Your task to perform on an android device: Open Yahoo.com Image 0: 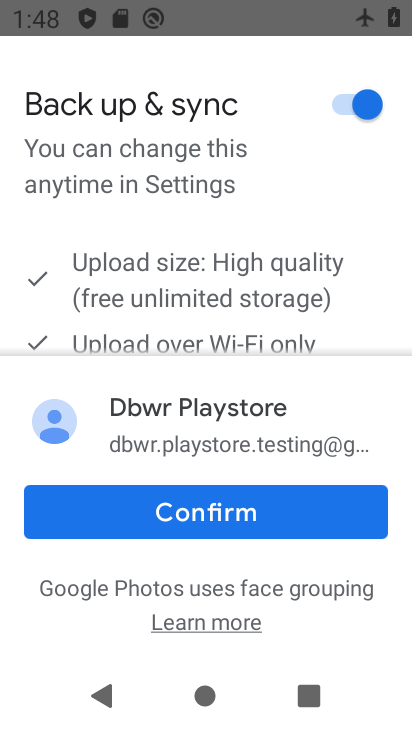
Step 0: press back button
Your task to perform on an android device: Open Yahoo.com Image 1: 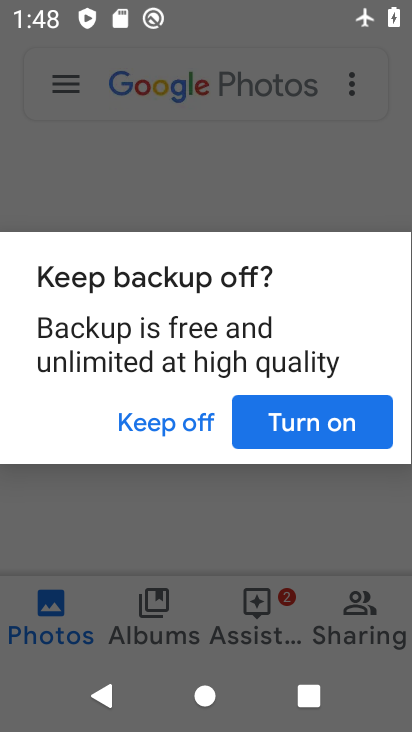
Step 1: press back button
Your task to perform on an android device: Open Yahoo.com Image 2: 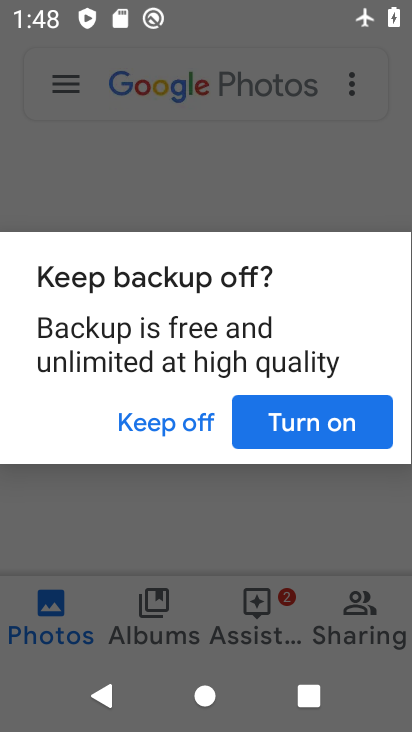
Step 2: press back button
Your task to perform on an android device: Open Yahoo.com Image 3: 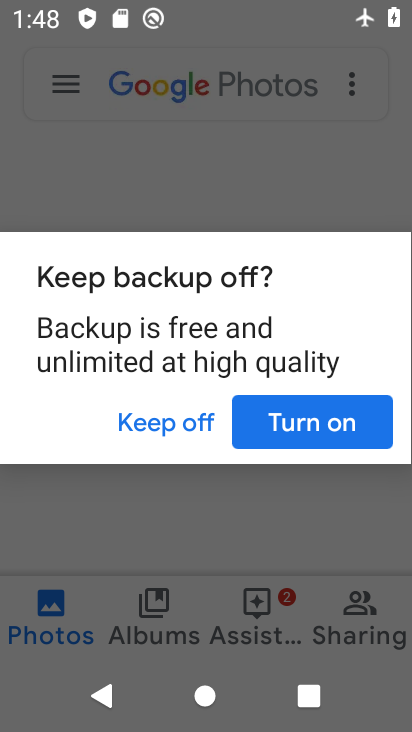
Step 3: press home button
Your task to perform on an android device: Open Yahoo.com Image 4: 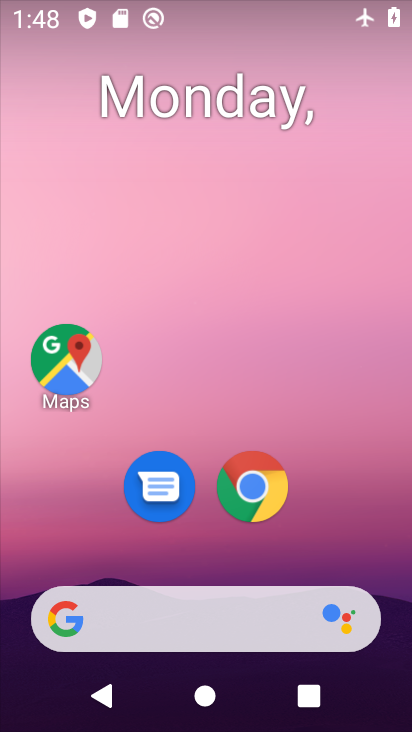
Step 4: click (259, 480)
Your task to perform on an android device: Open Yahoo.com Image 5: 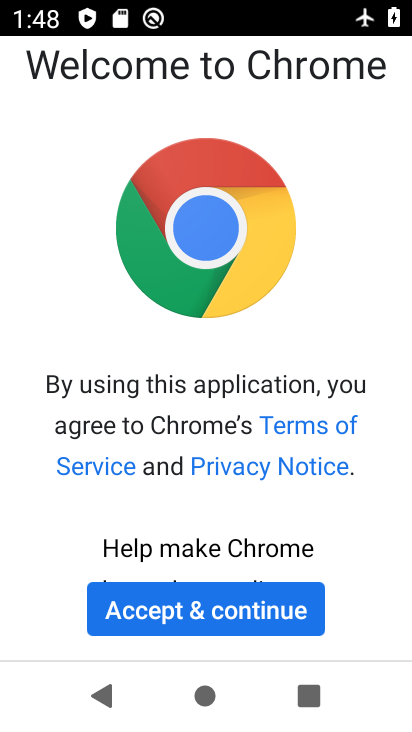
Step 5: click (217, 617)
Your task to perform on an android device: Open Yahoo.com Image 6: 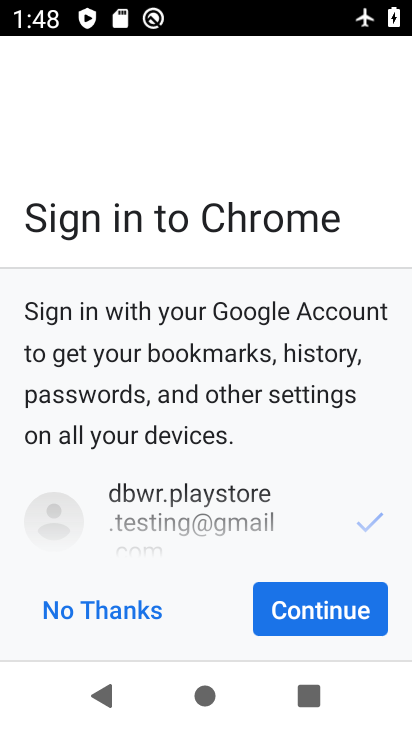
Step 6: click (293, 616)
Your task to perform on an android device: Open Yahoo.com Image 7: 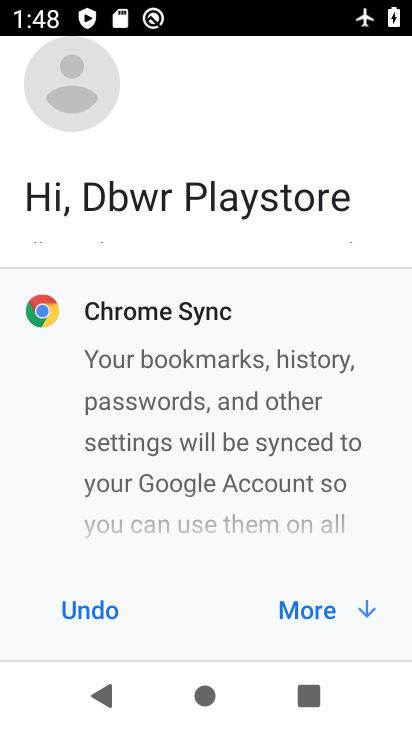
Step 7: click (294, 616)
Your task to perform on an android device: Open Yahoo.com Image 8: 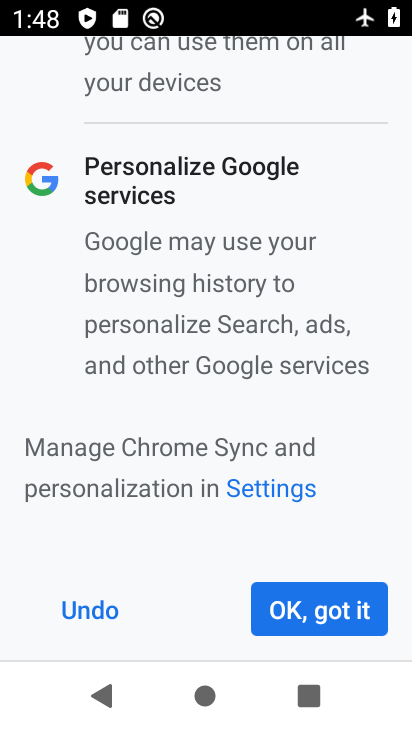
Step 8: click (294, 616)
Your task to perform on an android device: Open Yahoo.com Image 9: 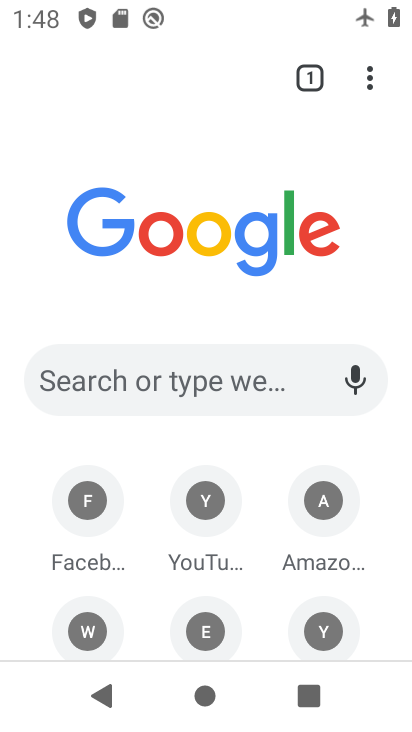
Step 9: click (256, 377)
Your task to perform on an android device: Open Yahoo.com Image 10: 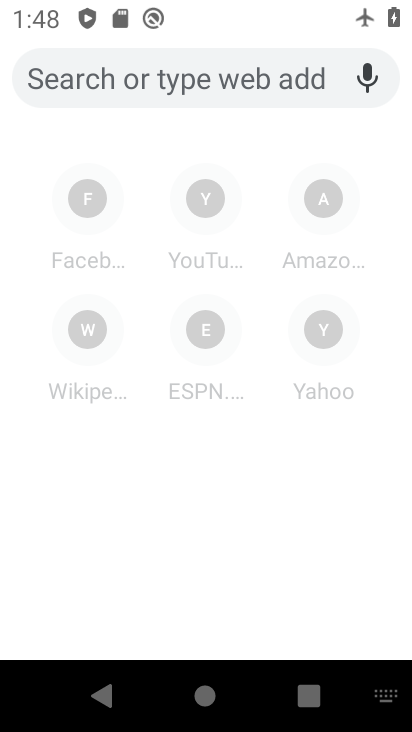
Step 10: click (211, 81)
Your task to perform on an android device: Open Yahoo.com Image 11: 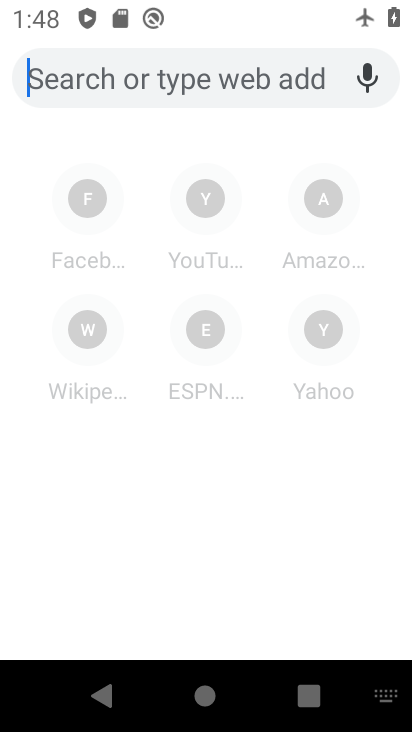
Step 11: click (209, 81)
Your task to perform on an android device: Open Yahoo.com Image 12: 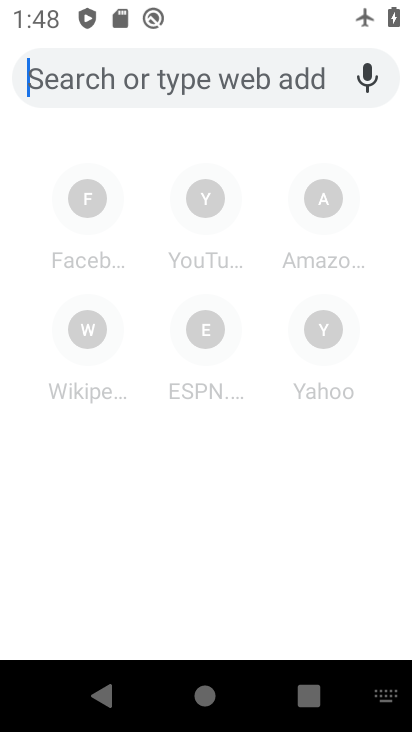
Step 12: click (209, 81)
Your task to perform on an android device: Open Yahoo.com Image 13: 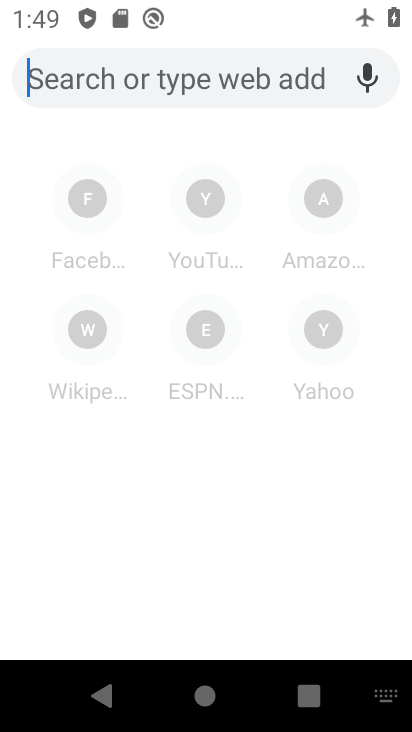
Step 13: click (246, 70)
Your task to perform on an android device: Open Yahoo.com Image 14: 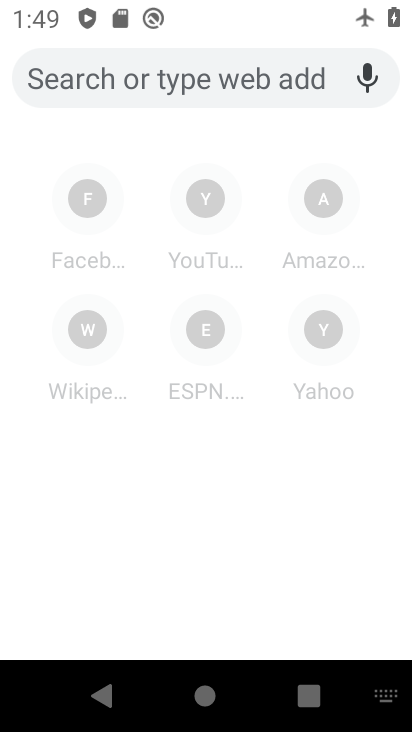
Step 14: type "Yahoo.com"
Your task to perform on an android device: Open Yahoo.com Image 15: 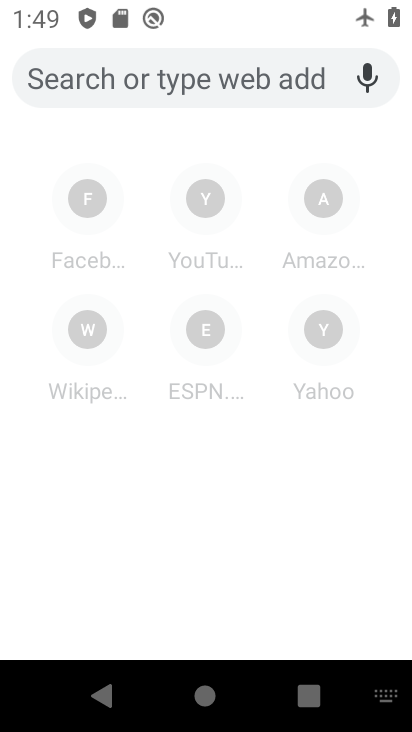
Step 15: click (246, 75)
Your task to perform on an android device: Open Yahoo.com Image 16: 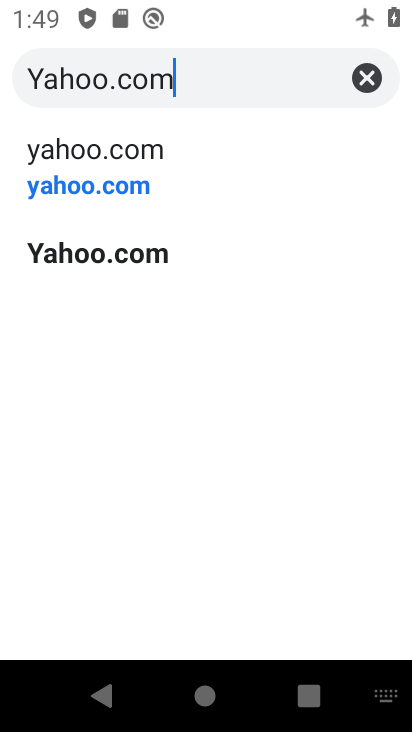
Step 16: click (246, 75)
Your task to perform on an android device: Open Yahoo.com Image 17: 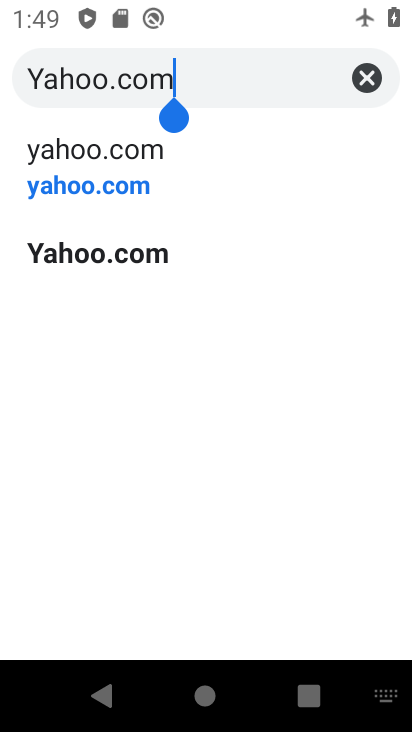
Step 17: click (133, 255)
Your task to perform on an android device: Open Yahoo.com Image 18: 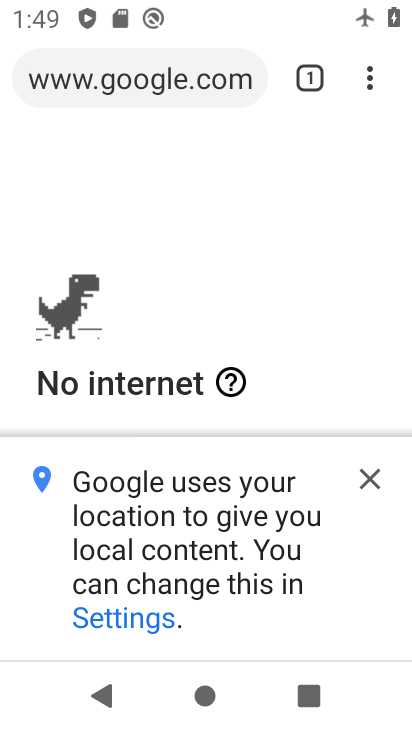
Step 18: task complete